Your task to perform on an android device: Search for sushi restaurants on Maps Image 0: 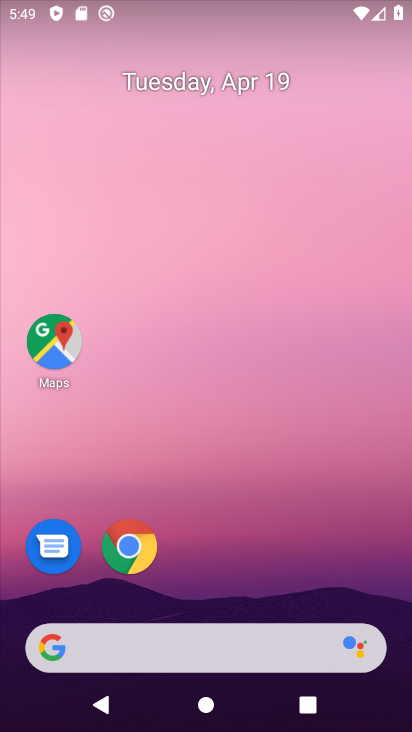
Step 0: drag from (246, 555) to (224, 78)
Your task to perform on an android device: Search for sushi restaurants on Maps Image 1: 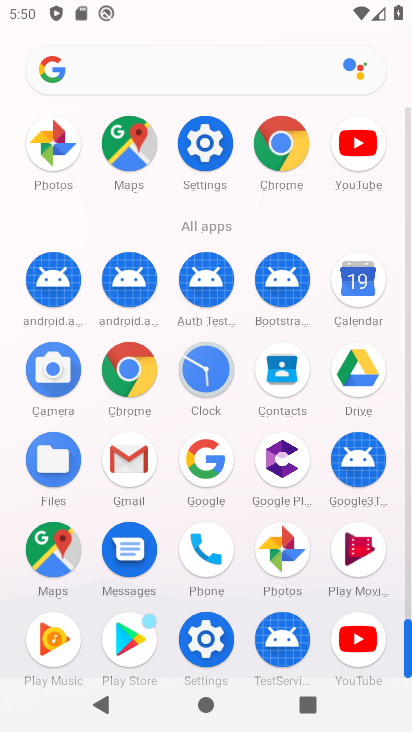
Step 1: click (43, 541)
Your task to perform on an android device: Search for sushi restaurants on Maps Image 2: 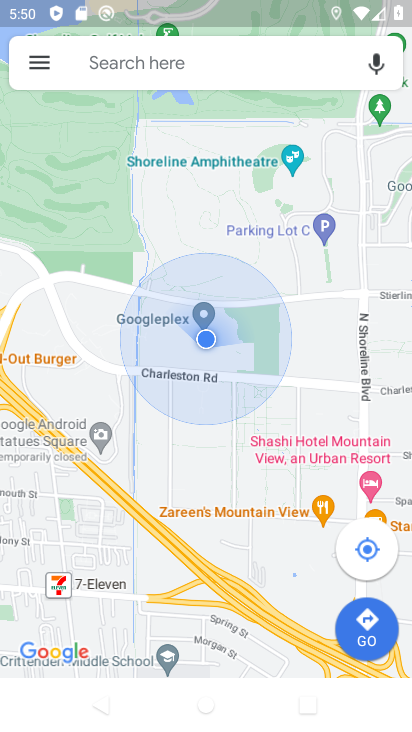
Step 2: click (156, 57)
Your task to perform on an android device: Search for sushi restaurants on Maps Image 3: 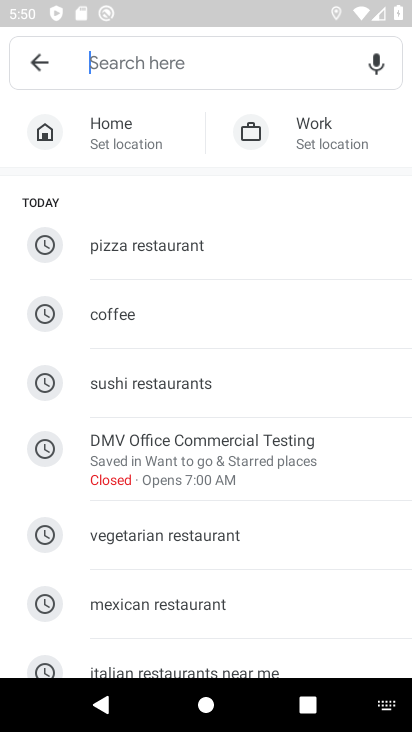
Step 3: click (206, 392)
Your task to perform on an android device: Search for sushi restaurants on Maps Image 4: 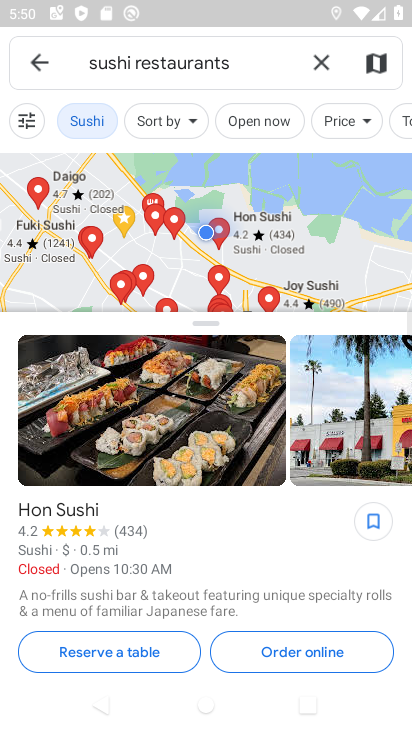
Step 4: task complete